Your task to perform on an android device: Go to CNN.com Image 0: 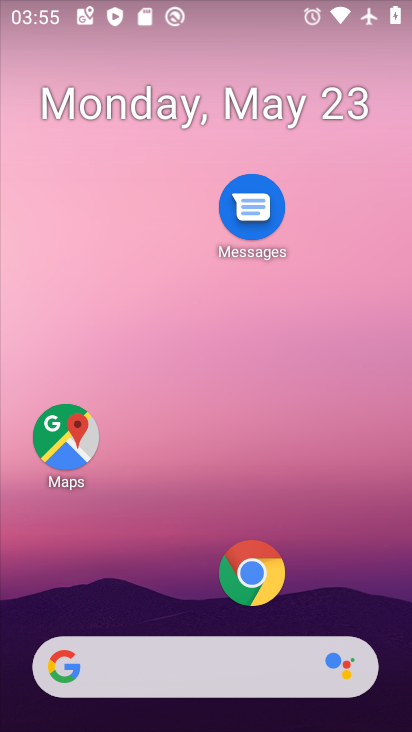
Step 0: drag from (209, 651) to (173, 25)
Your task to perform on an android device: Go to CNN.com Image 1: 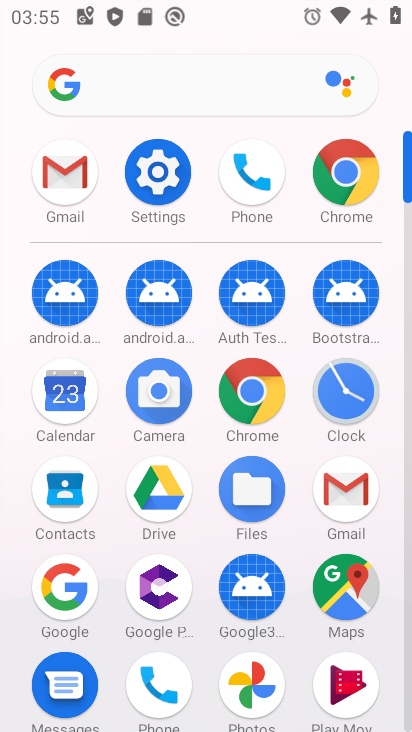
Step 1: click (243, 405)
Your task to perform on an android device: Go to CNN.com Image 2: 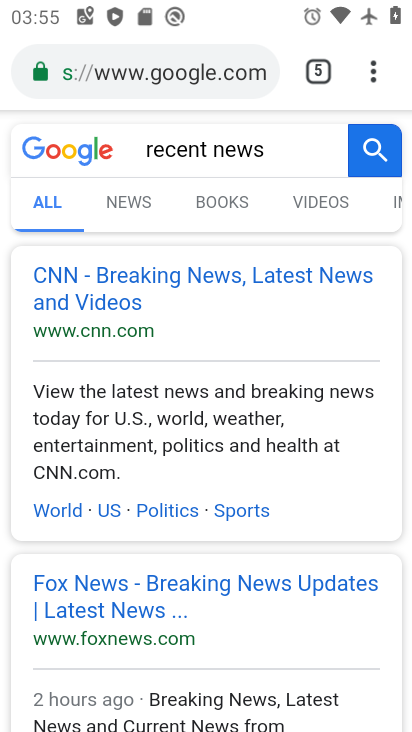
Step 2: click (177, 77)
Your task to perform on an android device: Go to CNN.com Image 3: 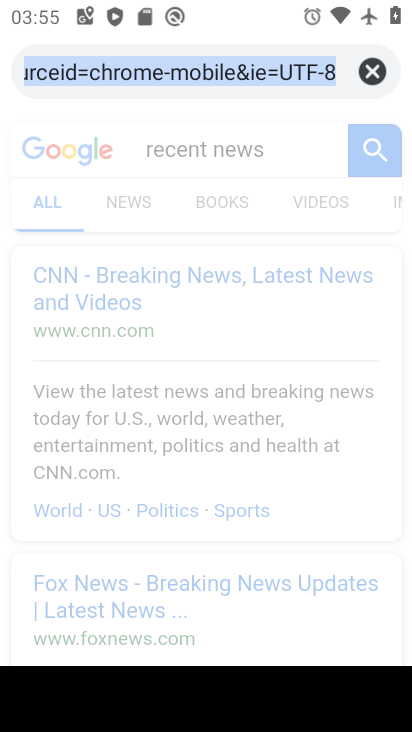
Step 3: click (369, 67)
Your task to perform on an android device: Go to CNN.com Image 4: 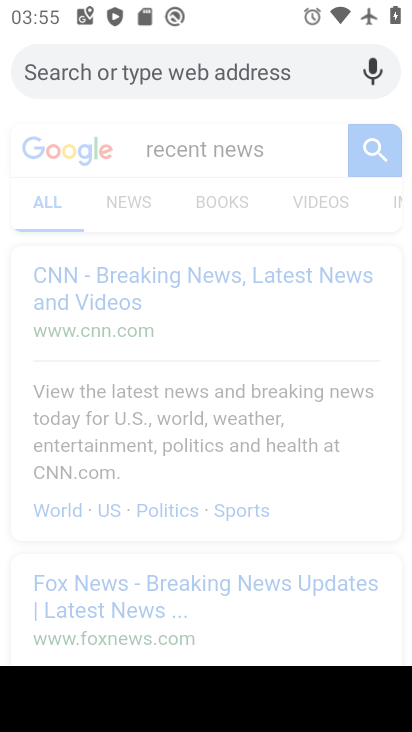
Step 4: type "cnn.com"
Your task to perform on an android device: Go to CNN.com Image 5: 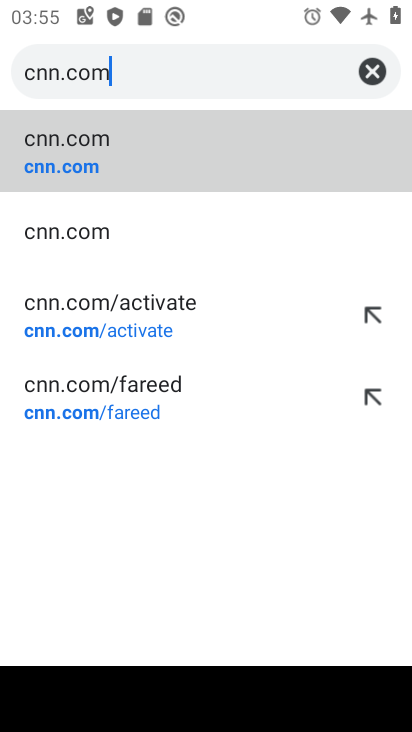
Step 5: click (73, 152)
Your task to perform on an android device: Go to CNN.com Image 6: 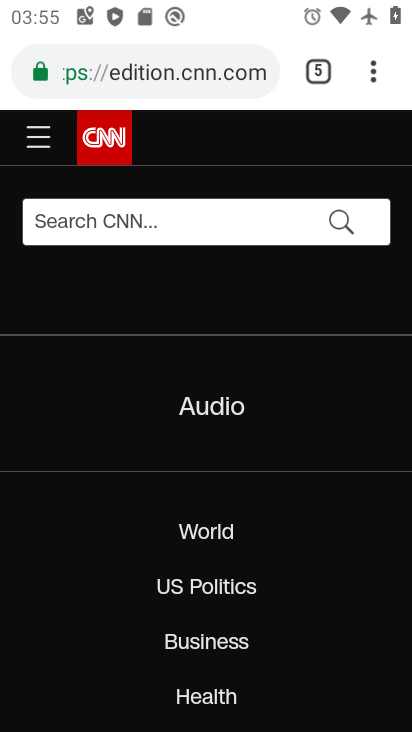
Step 6: task complete